Your task to perform on an android device: Go to Yahoo.com Image 0: 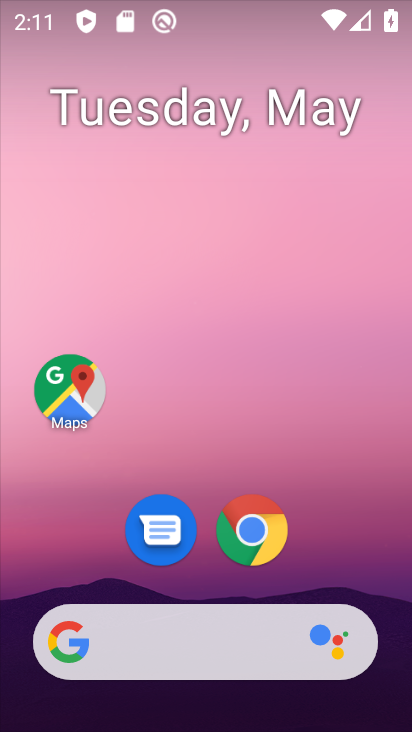
Step 0: click (252, 532)
Your task to perform on an android device: Go to Yahoo.com Image 1: 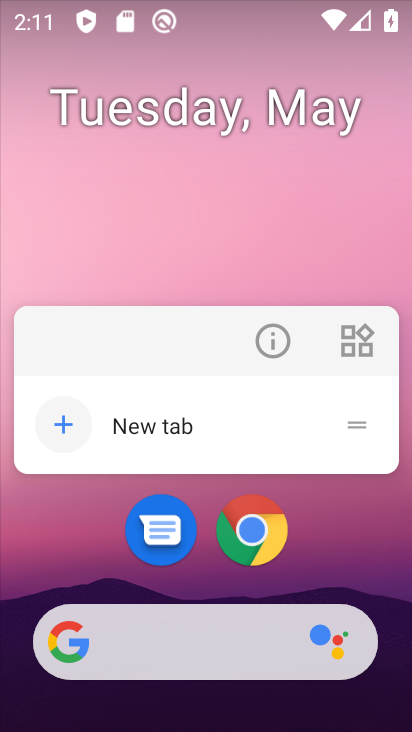
Step 1: drag from (296, 567) to (329, 108)
Your task to perform on an android device: Go to Yahoo.com Image 2: 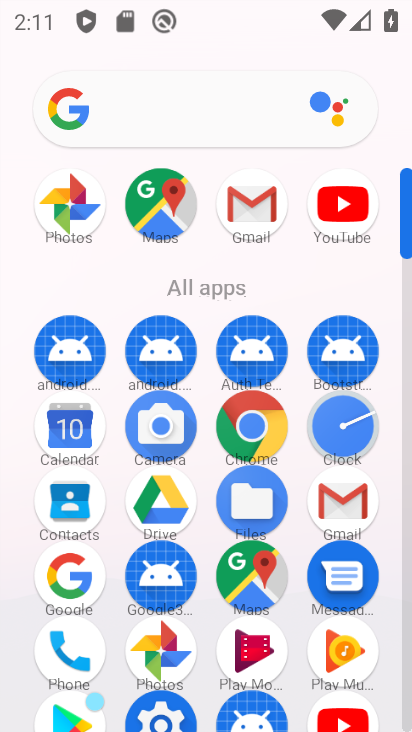
Step 2: click (252, 430)
Your task to perform on an android device: Go to Yahoo.com Image 3: 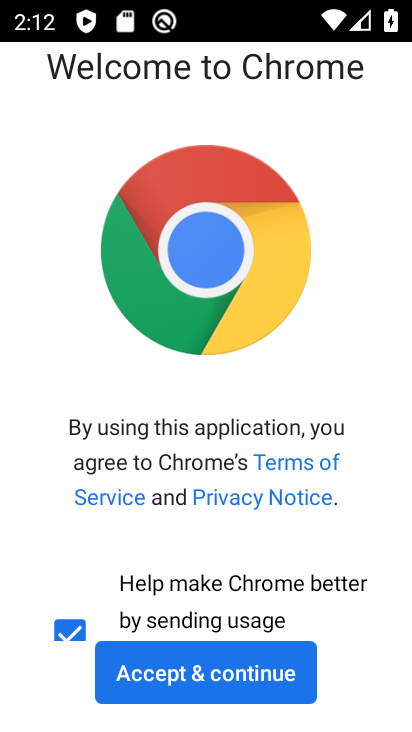
Step 3: click (204, 670)
Your task to perform on an android device: Go to Yahoo.com Image 4: 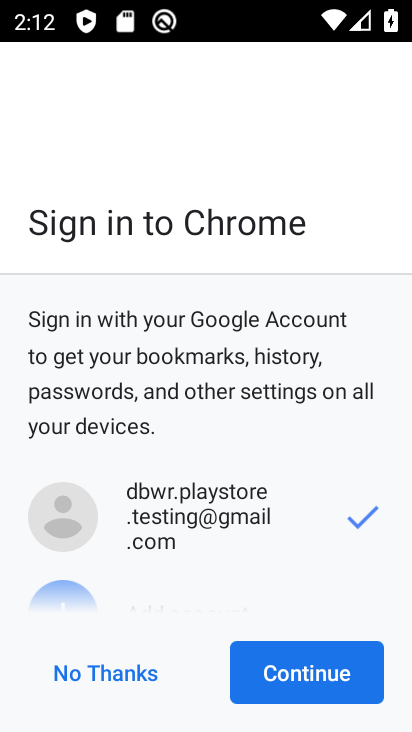
Step 4: click (255, 659)
Your task to perform on an android device: Go to Yahoo.com Image 5: 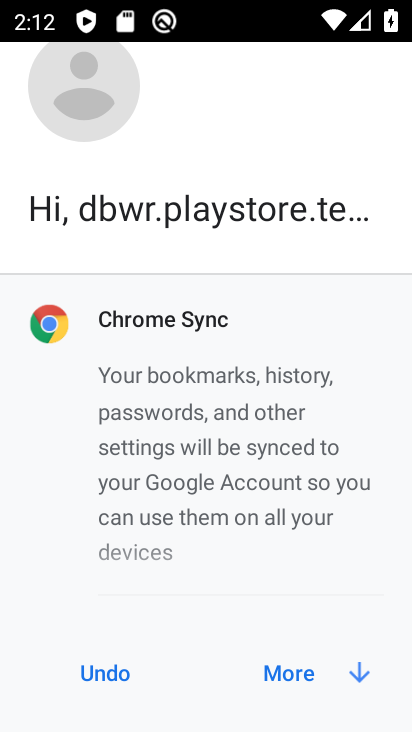
Step 5: click (263, 661)
Your task to perform on an android device: Go to Yahoo.com Image 6: 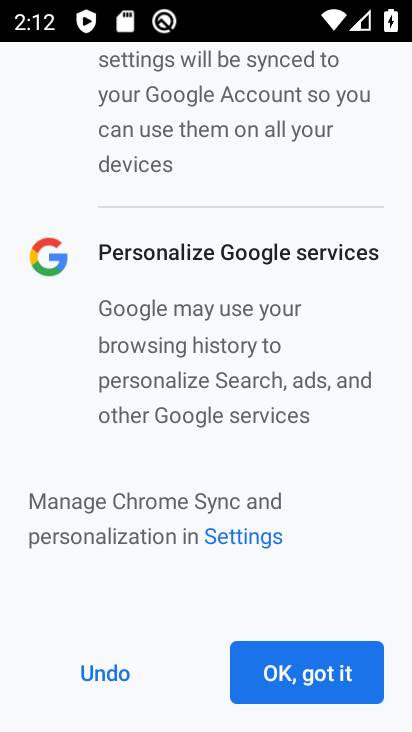
Step 6: click (263, 661)
Your task to perform on an android device: Go to Yahoo.com Image 7: 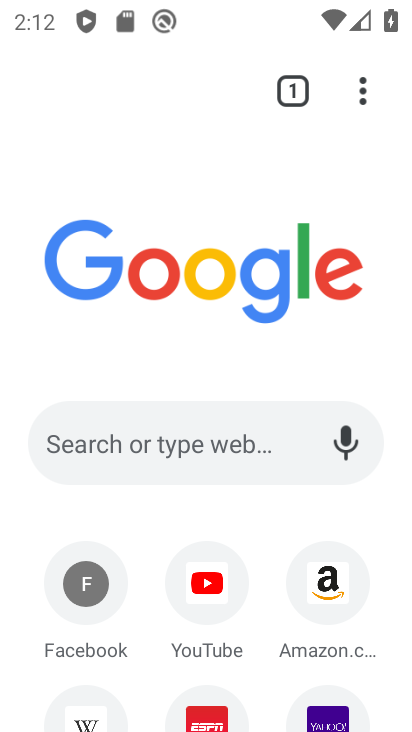
Step 7: click (331, 707)
Your task to perform on an android device: Go to Yahoo.com Image 8: 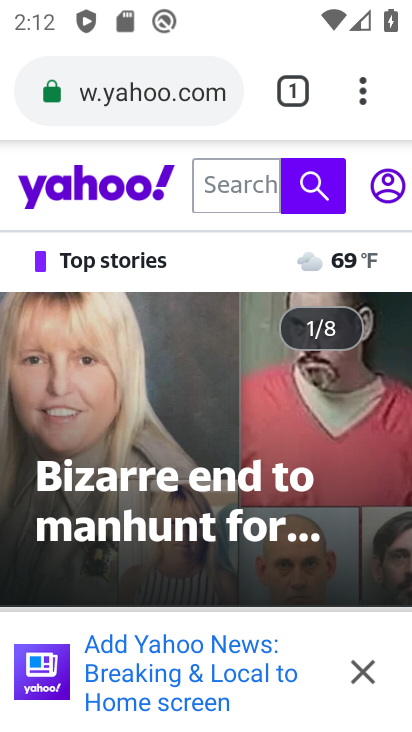
Step 8: click (362, 668)
Your task to perform on an android device: Go to Yahoo.com Image 9: 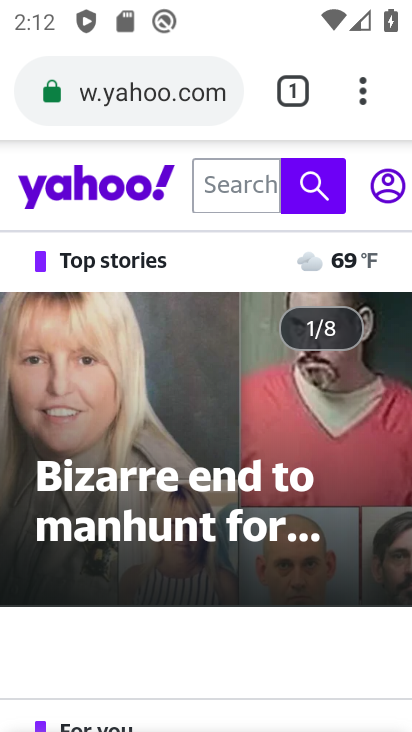
Step 9: task complete